Your task to perform on an android device: Show the shopping cart on costco.com. Add "razer deathadder" to the cart on costco.com, then select checkout. Image 0: 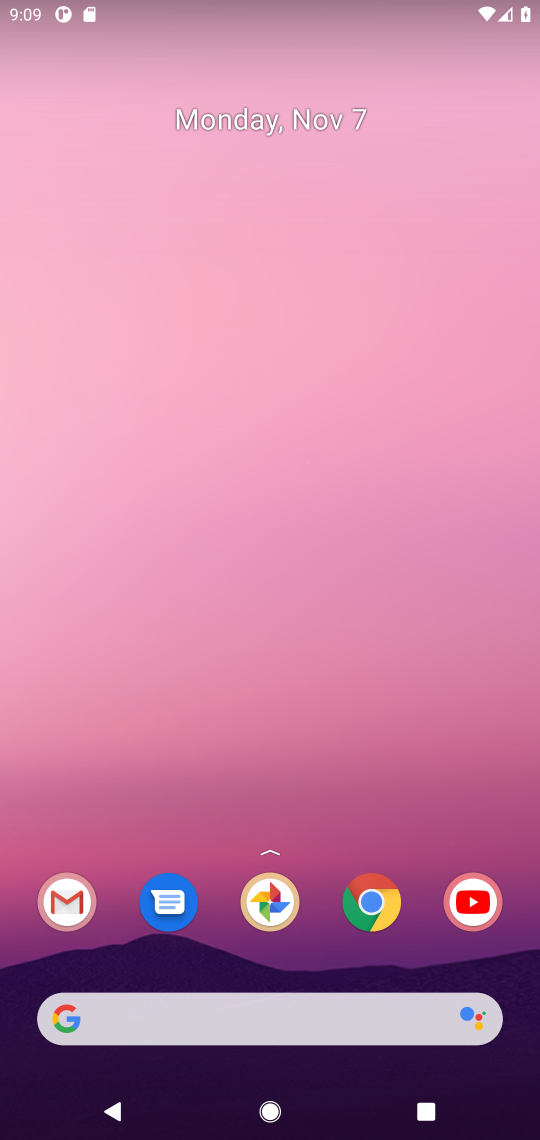
Step 0: click (365, 912)
Your task to perform on an android device: Show the shopping cart on costco.com. Add "razer deathadder" to the cart on costco.com, then select checkout. Image 1: 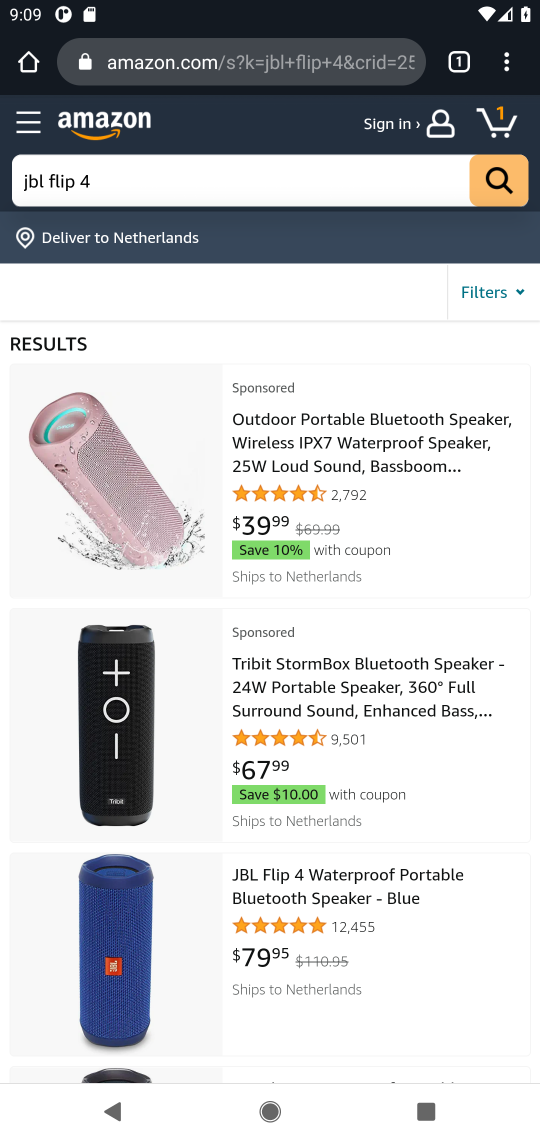
Step 1: click (234, 71)
Your task to perform on an android device: Show the shopping cart on costco.com. Add "razer deathadder" to the cart on costco.com, then select checkout. Image 2: 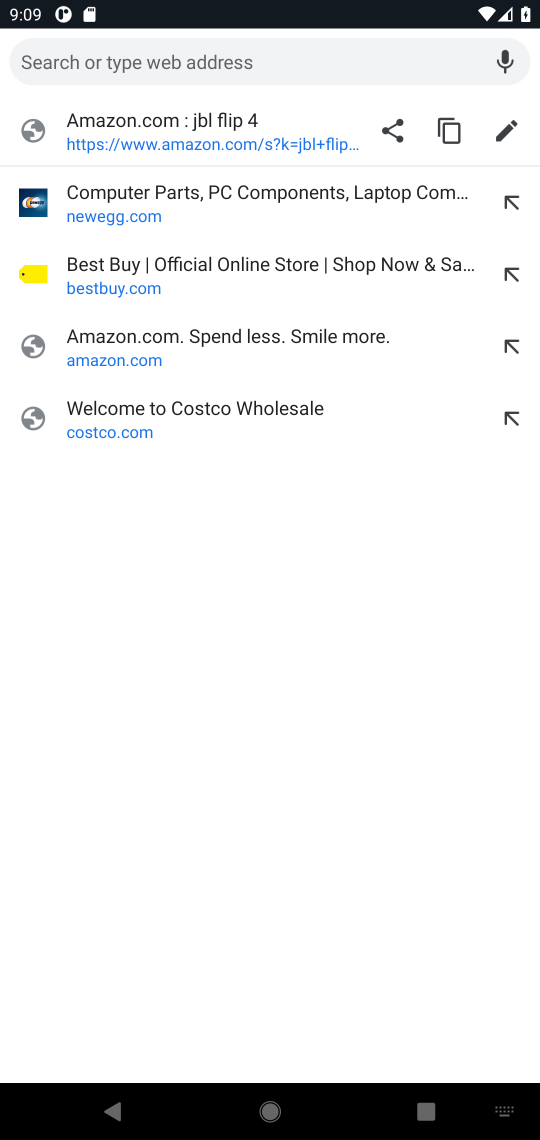
Step 2: click (70, 432)
Your task to perform on an android device: Show the shopping cart on costco.com. Add "razer deathadder" to the cart on costco.com, then select checkout. Image 3: 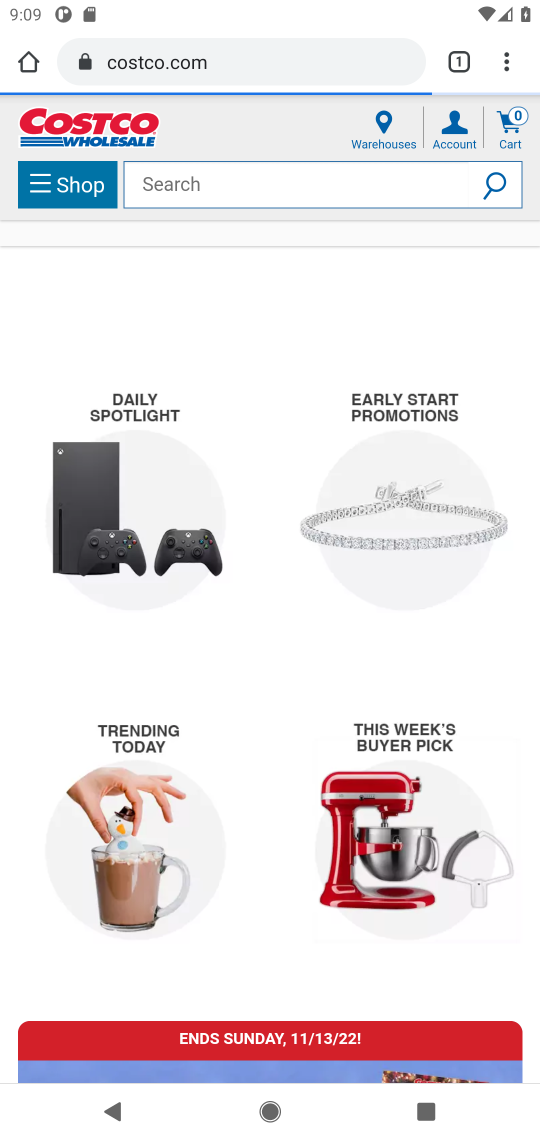
Step 3: click (509, 130)
Your task to perform on an android device: Show the shopping cart on costco.com. Add "razer deathadder" to the cart on costco.com, then select checkout. Image 4: 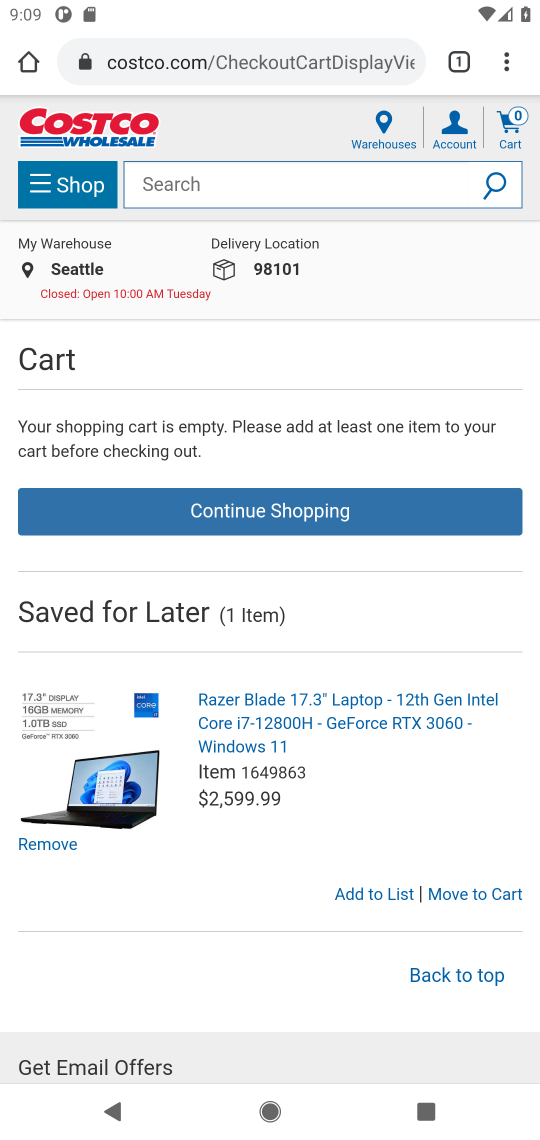
Step 4: click (198, 181)
Your task to perform on an android device: Show the shopping cart on costco.com. Add "razer deathadder" to the cart on costco.com, then select checkout. Image 5: 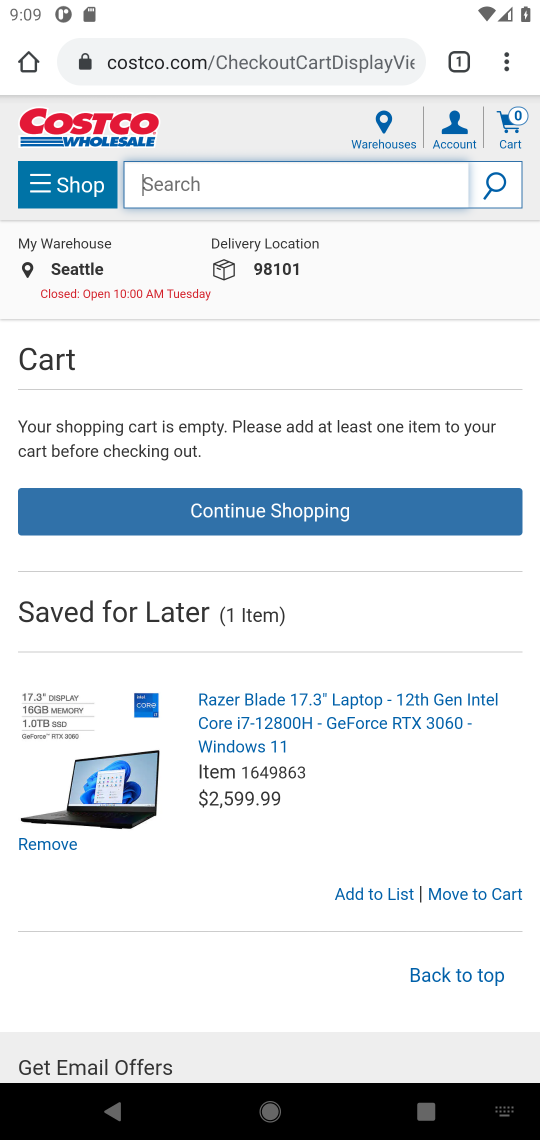
Step 5: type "razer deathadder"
Your task to perform on an android device: Show the shopping cart on costco.com. Add "razer deathadder" to the cart on costco.com, then select checkout. Image 6: 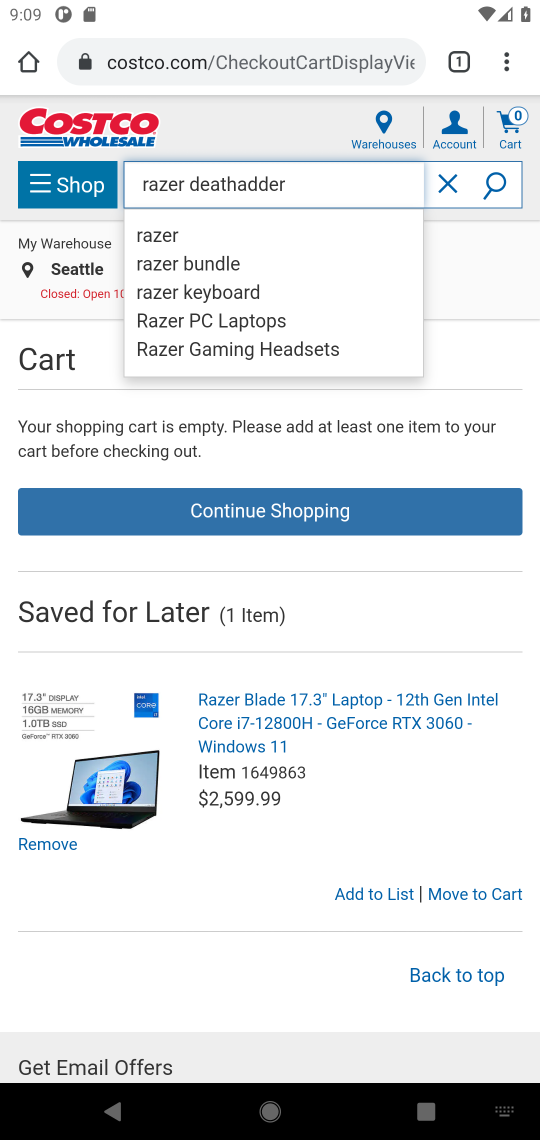
Step 6: click (505, 188)
Your task to perform on an android device: Show the shopping cart on costco.com. Add "razer deathadder" to the cart on costco.com, then select checkout. Image 7: 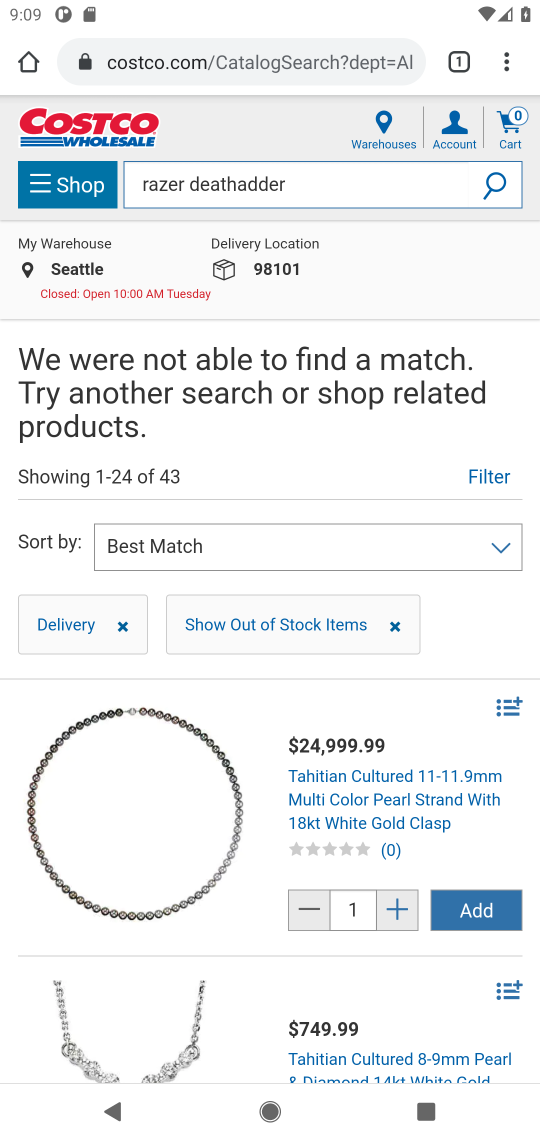
Step 7: task complete